Your task to perform on an android device: Open eBay Image 0: 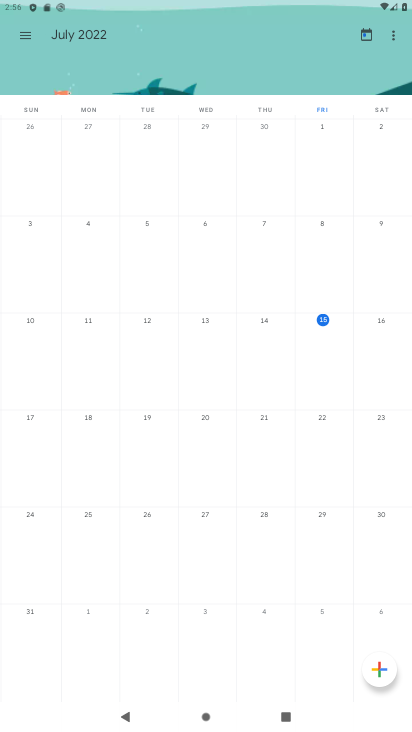
Step 0: press home button
Your task to perform on an android device: Open eBay Image 1: 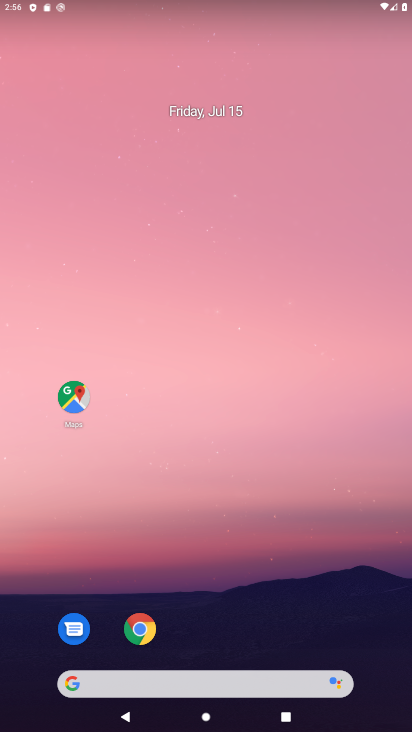
Step 1: click (141, 627)
Your task to perform on an android device: Open eBay Image 2: 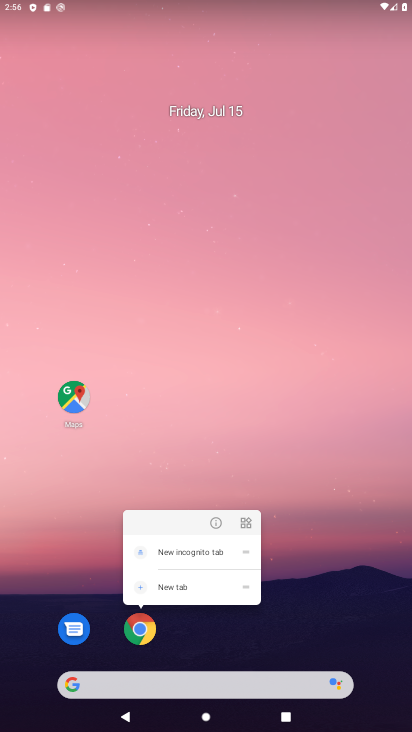
Step 2: click (151, 631)
Your task to perform on an android device: Open eBay Image 3: 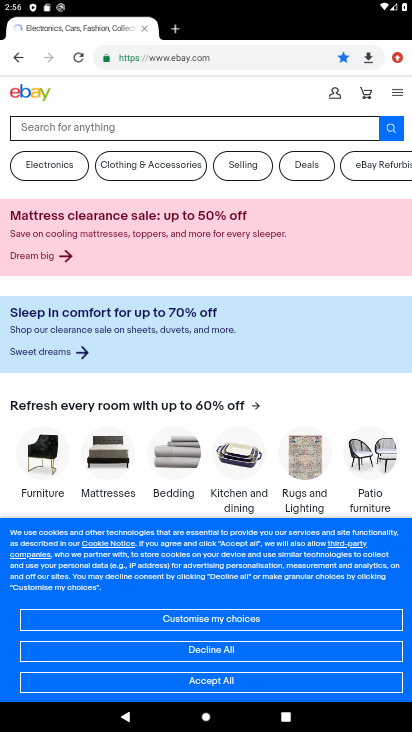
Step 3: task complete